Your task to perform on an android device: uninstall "Airtel Thanks" Image 0: 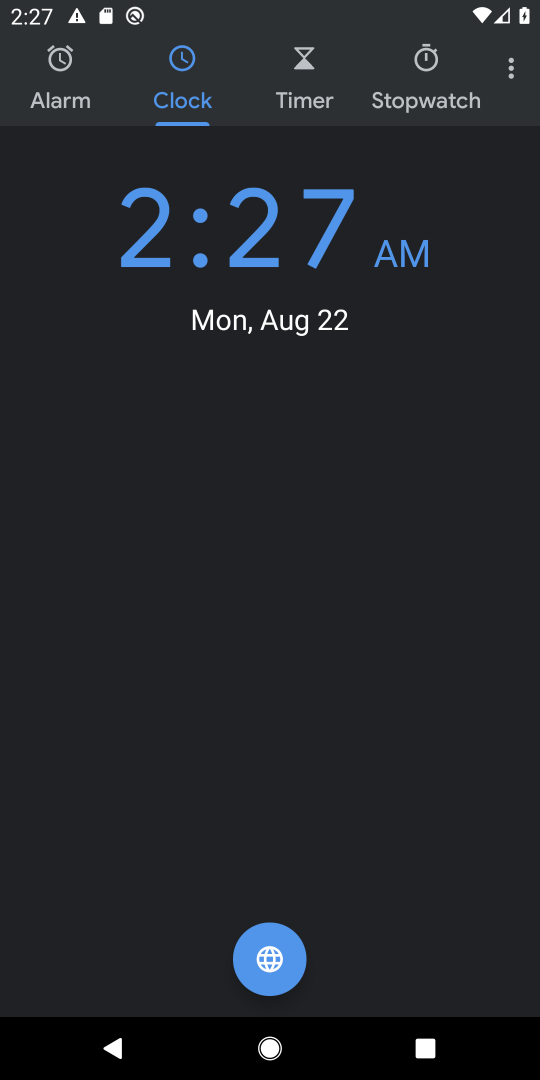
Step 0: press home button
Your task to perform on an android device: uninstall "Airtel Thanks" Image 1: 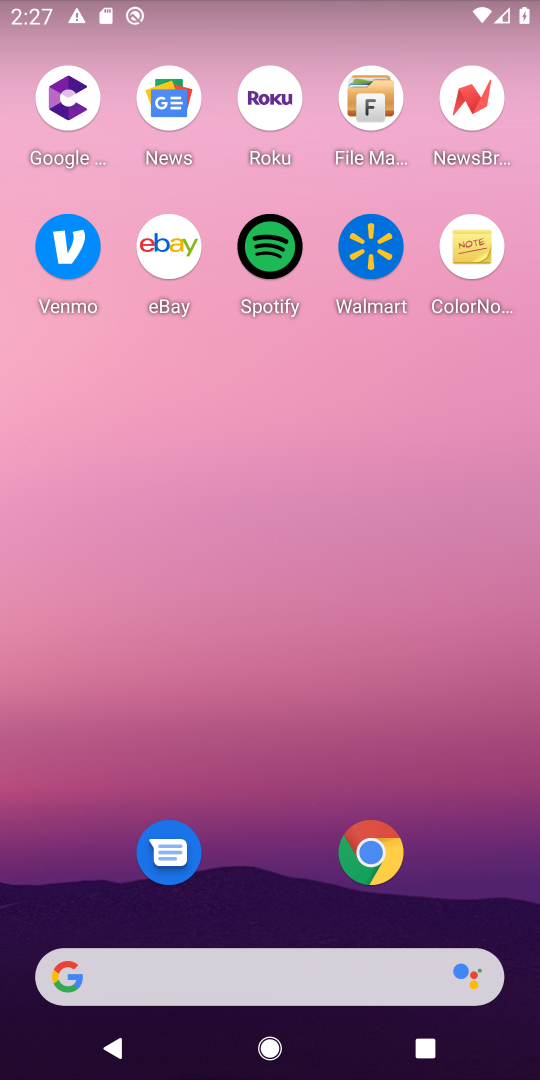
Step 1: drag from (280, 887) to (275, 123)
Your task to perform on an android device: uninstall "Airtel Thanks" Image 2: 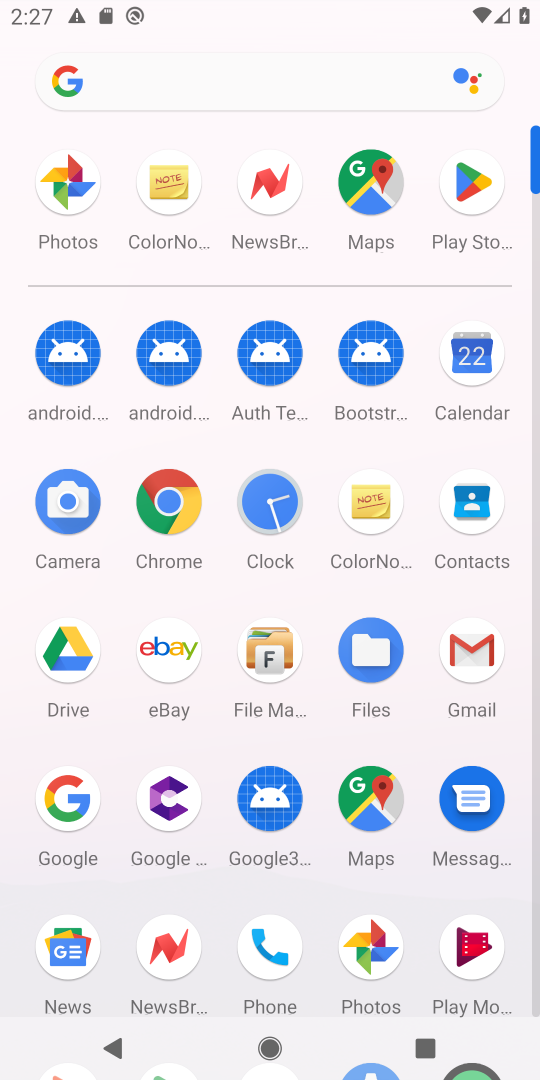
Step 2: click (475, 180)
Your task to perform on an android device: uninstall "Airtel Thanks" Image 3: 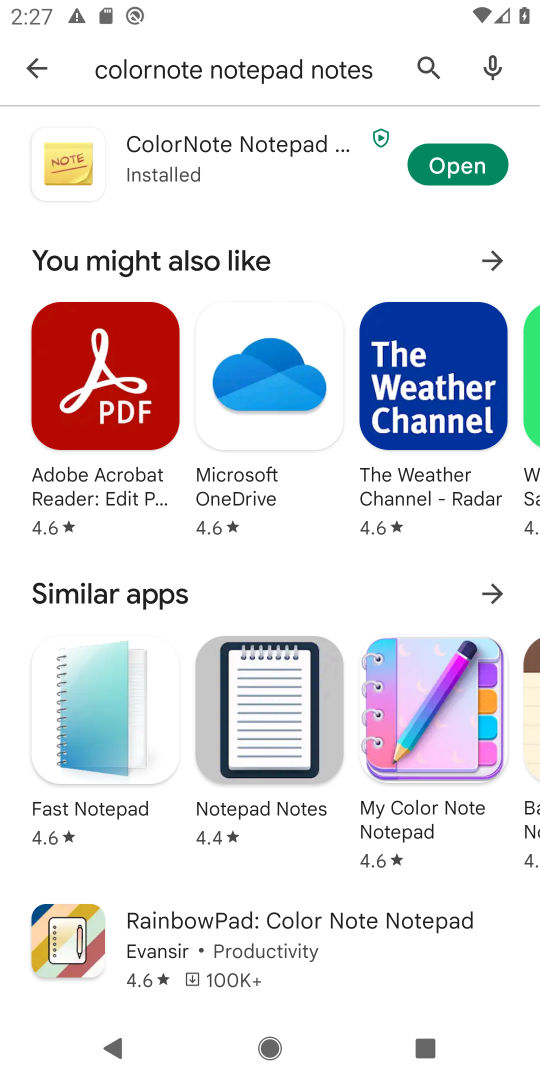
Step 3: click (429, 63)
Your task to perform on an android device: uninstall "Airtel Thanks" Image 4: 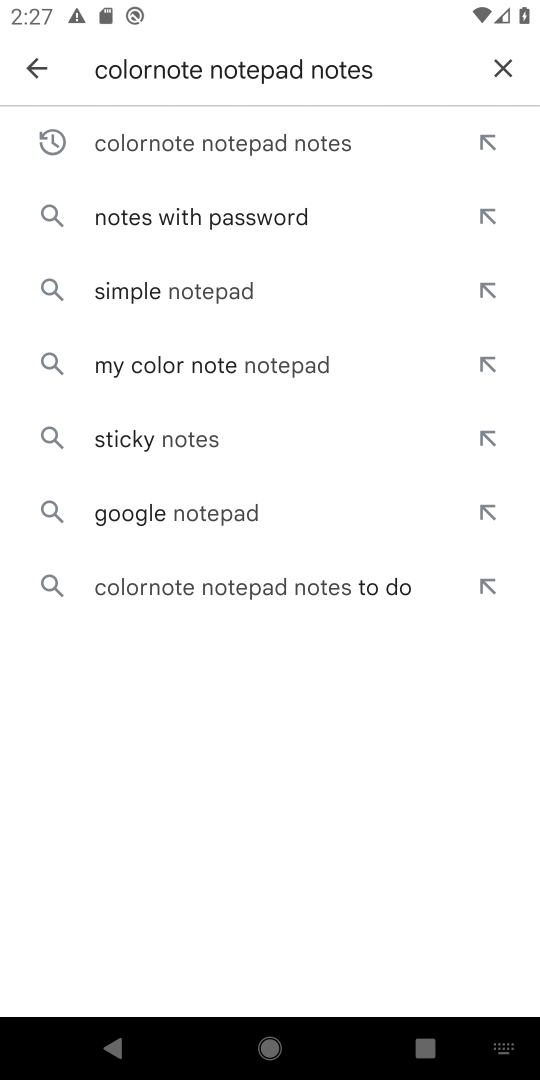
Step 4: click (500, 64)
Your task to perform on an android device: uninstall "Airtel Thanks" Image 5: 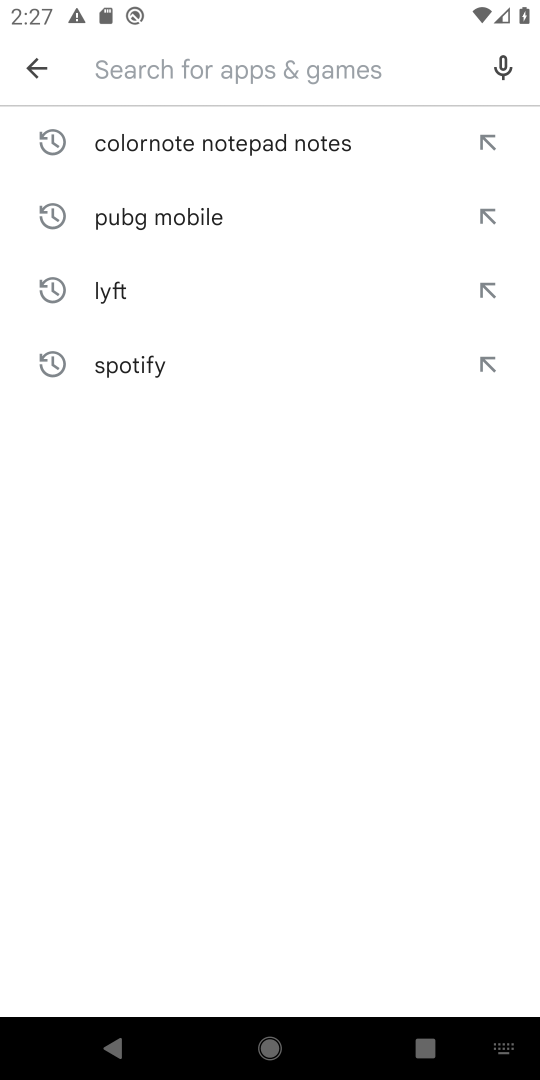
Step 5: type "Airtlet Thanks"
Your task to perform on an android device: uninstall "Airtel Thanks" Image 6: 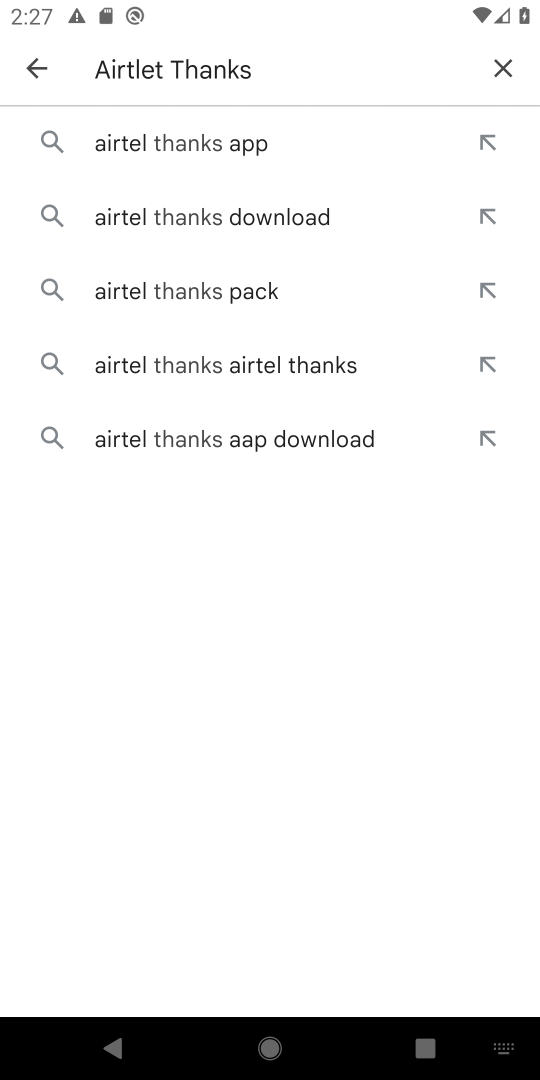
Step 6: click (210, 141)
Your task to perform on an android device: uninstall "Airtel Thanks" Image 7: 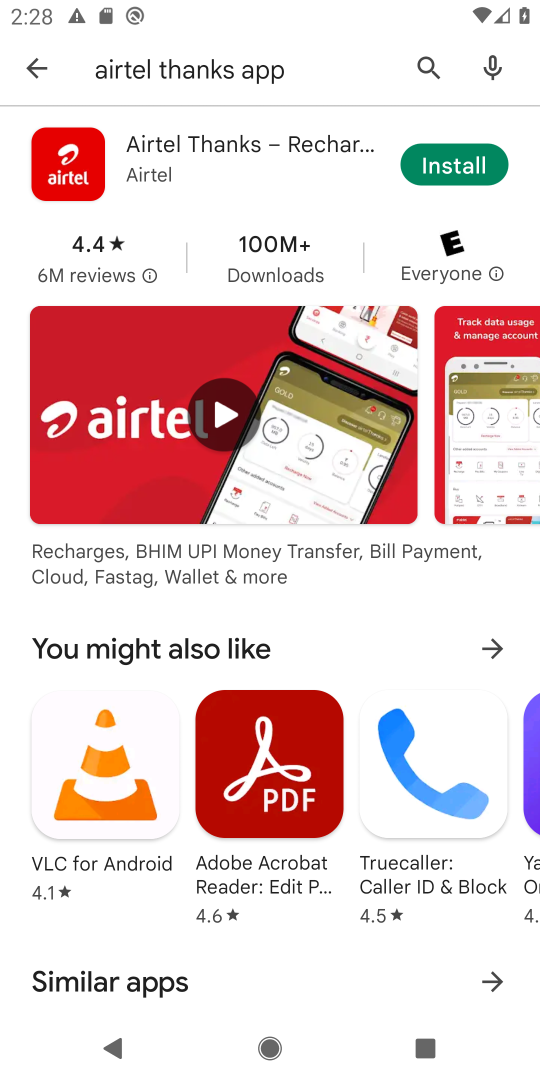
Step 7: task complete